Your task to perform on an android device: turn off priority inbox in the gmail app Image 0: 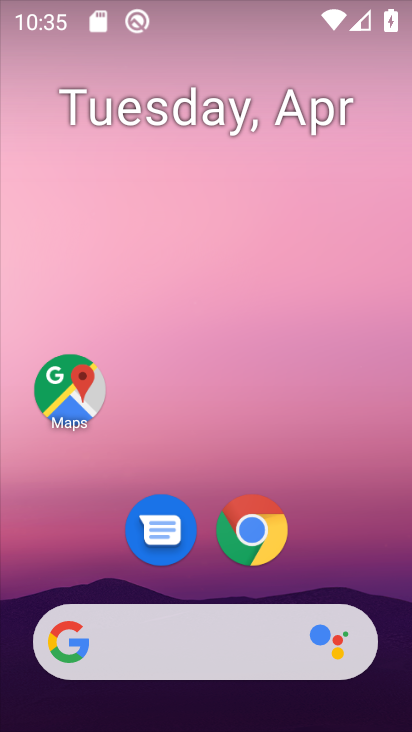
Step 0: drag from (210, 537) to (286, 102)
Your task to perform on an android device: turn off priority inbox in the gmail app Image 1: 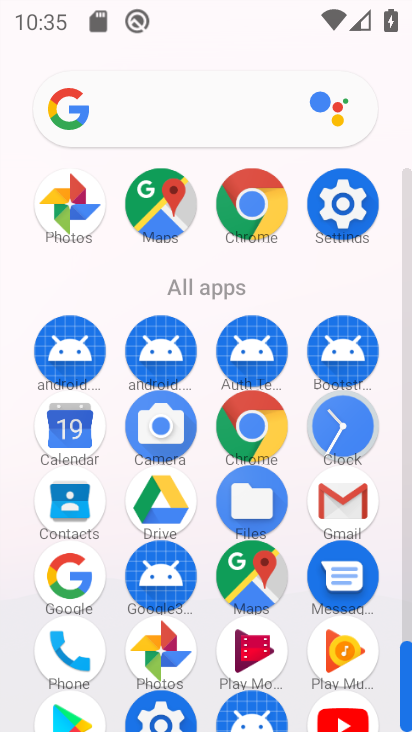
Step 1: click (336, 506)
Your task to perform on an android device: turn off priority inbox in the gmail app Image 2: 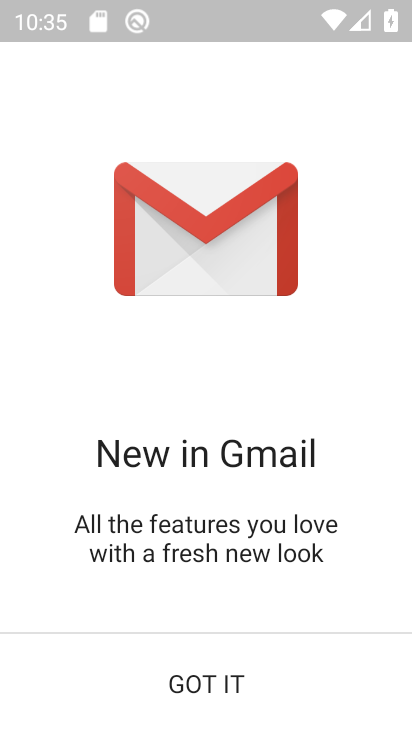
Step 2: click (201, 668)
Your task to perform on an android device: turn off priority inbox in the gmail app Image 3: 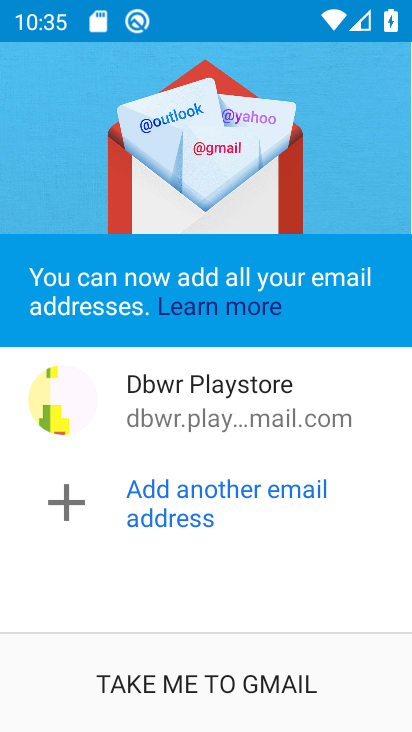
Step 3: click (196, 676)
Your task to perform on an android device: turn off priority inbox in the gmail app Image 4: 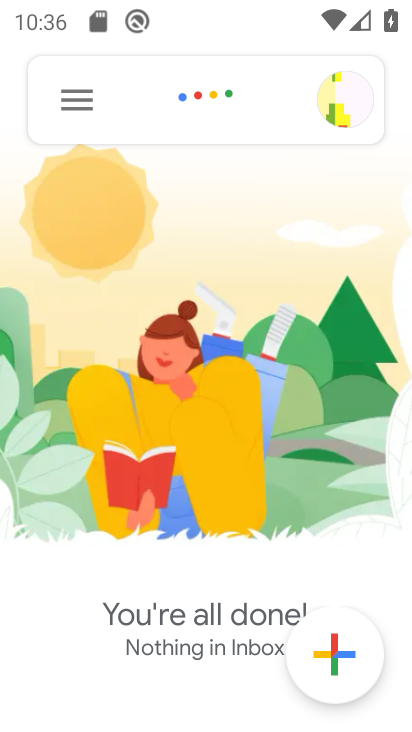
Step 4: click (84, 101)
Your task to perform on an android device: turn off priority inbox in the gmail app Image 5: 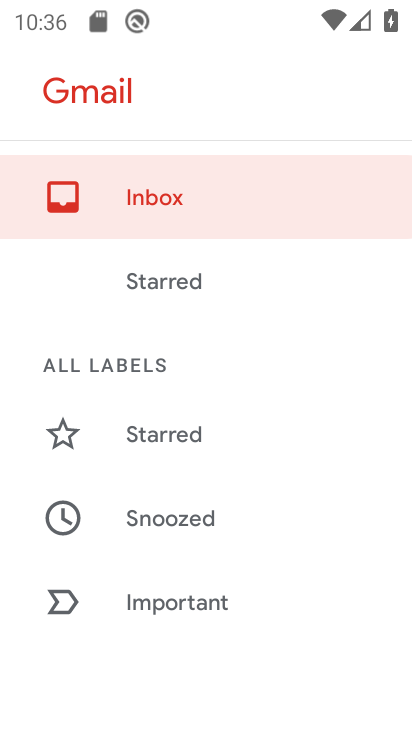
Step 5: drag from (248, 549) to (392, 117)
Your task to perform on an android device: turn off priority inbox in the gmail app Image 6: 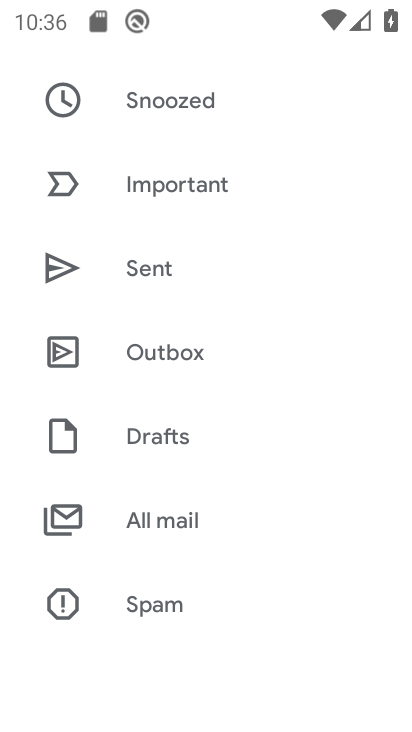
Step 6: drag from (197, 604) to (342, 85)
Your task to perform on an android device: turn off priority inbox in the gmail app Image 7: 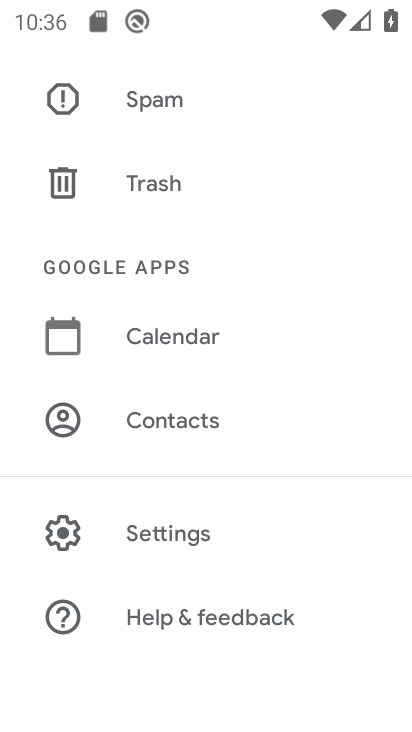
Step 7: click (180, 534)
Your task to perform on an android device: turn off priority inbox in the gmail app Image 8: 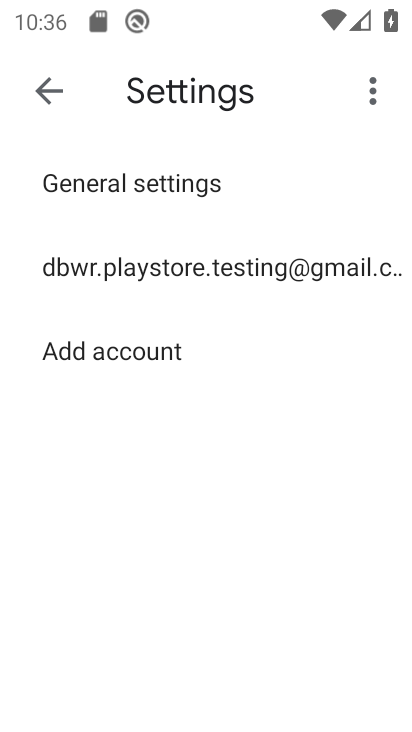
Step 8: click (280, 266)
Your task to perform on an android device: turn off priority inbox in the gmail app Image 9: 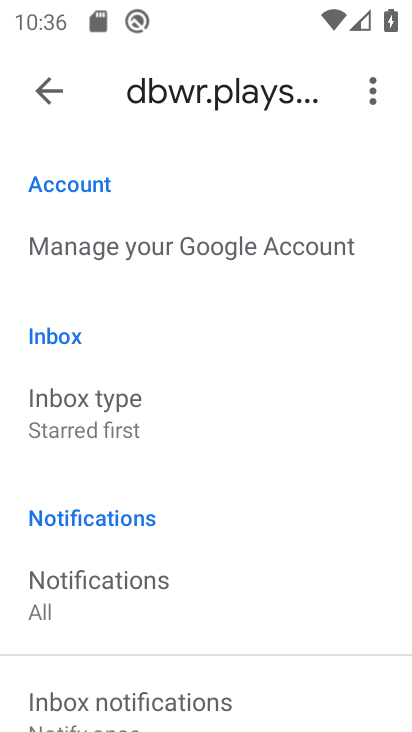
Step 9: click (116, 398)
Your task to perform on an android device: turn off priority inbox in the gmail app Image 10: 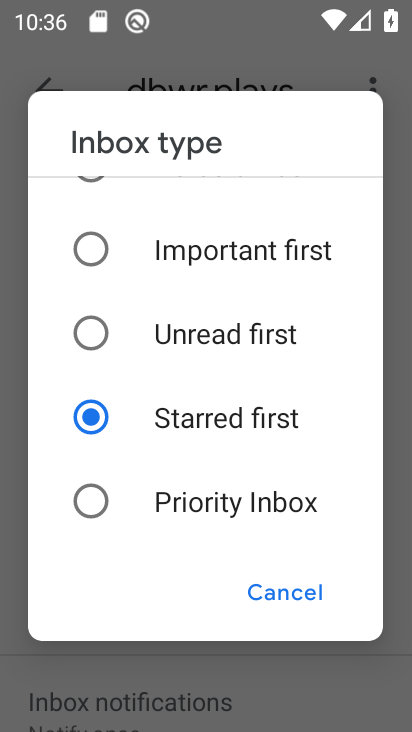
Step 10: task complete